Your task to perform on an android device: What's the news in India? Image 0: 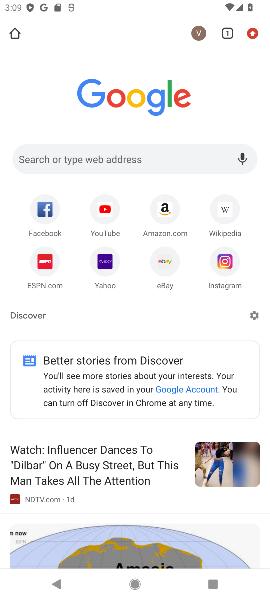
Step 0: press home button
Your task to perform on an android device: What's the news in India? Image 1: 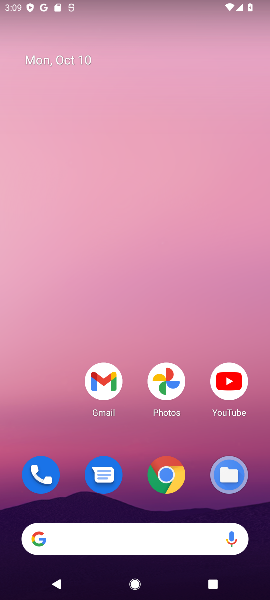
Step 1: drag from (138, 510) to (165, 215)
Your task to perform on an android device: What's the news in India? Image 2: 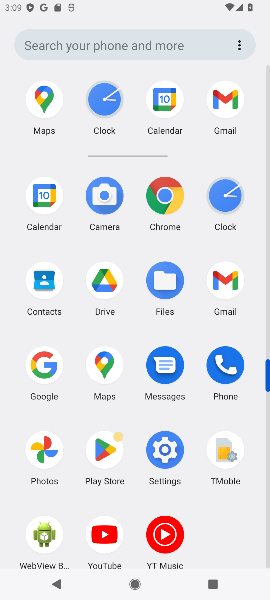
Step 2: click (44, 369)
Your task to perform on an android device: What's the news in India? Image 3: 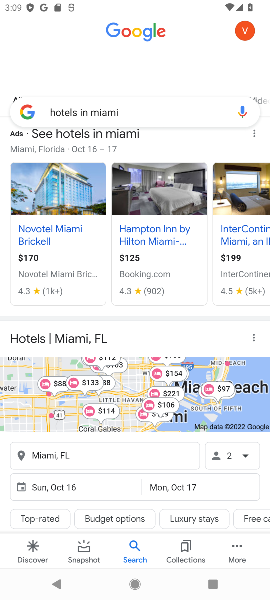
Step 3: click (176, 118)
Your task to perform on an android device: What's the news in India? Image 4: 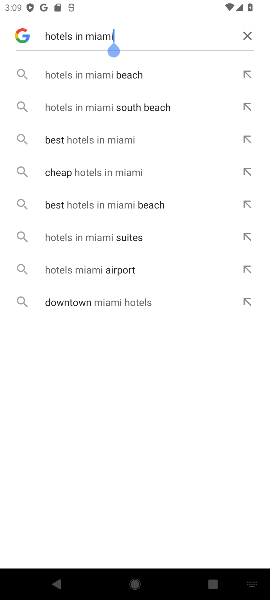
Step 4: click (245, 36)
Your task to perform on an android device: What's the news in India? Image 5: 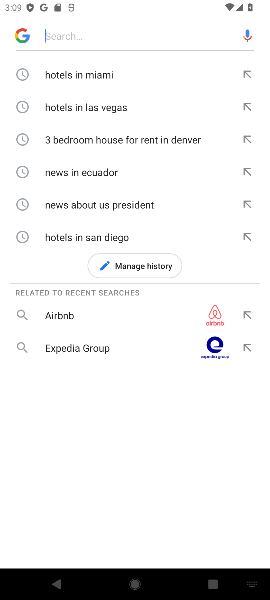
Step 5: type "What's the news in India?"
Your task to perform on an android device: What's the news in India? Image 6: 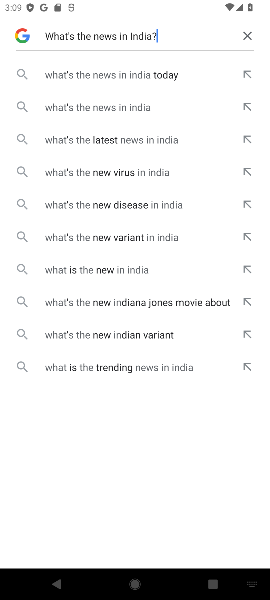
Step 6: click (146, 110)
Your task to perform on an android device: What's the news in India? Image 7: 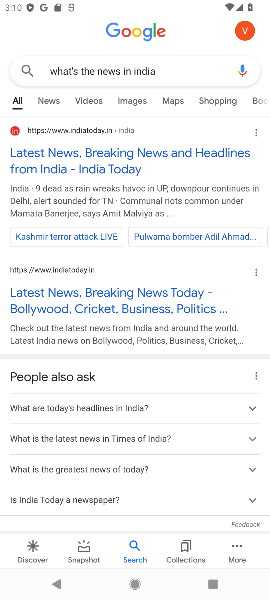
Step 7: task complete